Your task to perform on an android device: toggle data saver in the chrome app Image 0: 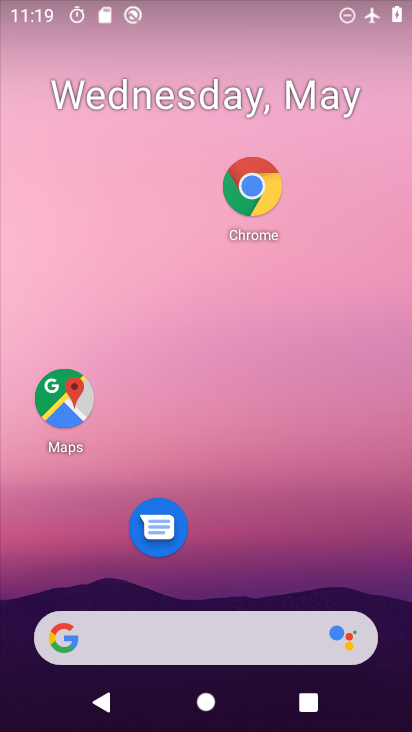
Step 0: click (230, 189)
Your task to perform on an android device: toggle data saver in the chrome app Image 1: 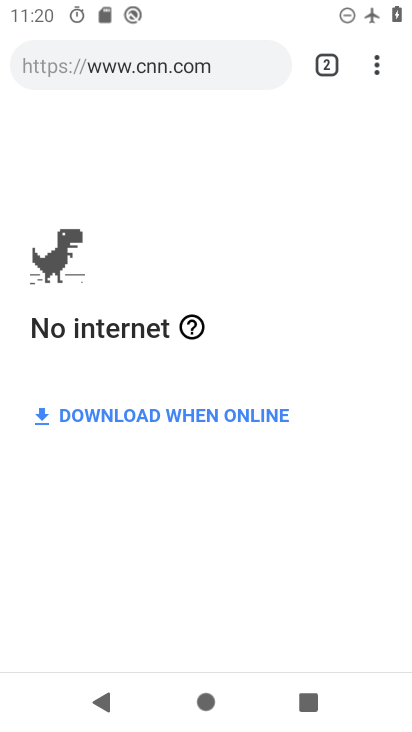
Step 1: press home button
Your task to perform on an android device: toggle data saver in the chrome app Image 2: 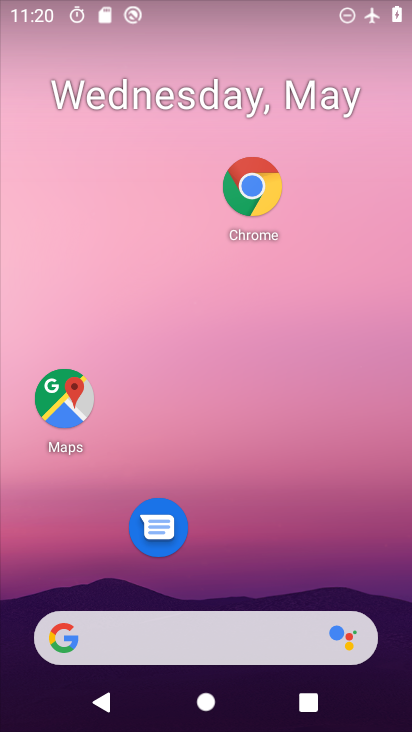
Step 2: drag from (246, 594) to (315, 192)
Your task to perform on an android device: toggle data saver in the chrome app Image 3: 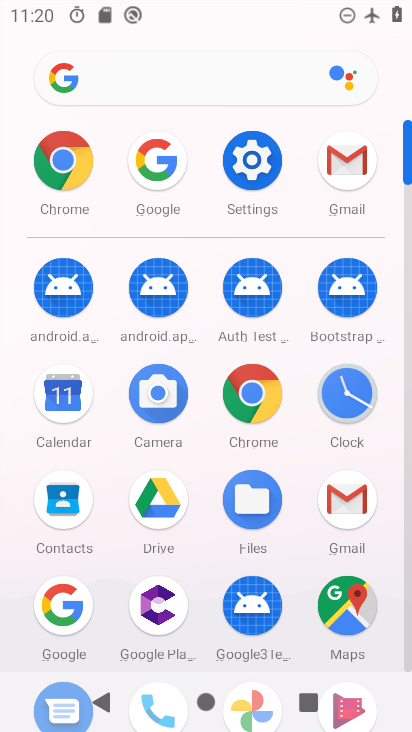
Step 3: click (145, 530)
Your task to perform on an android device: toggle data saver in the chrome app Image 4: 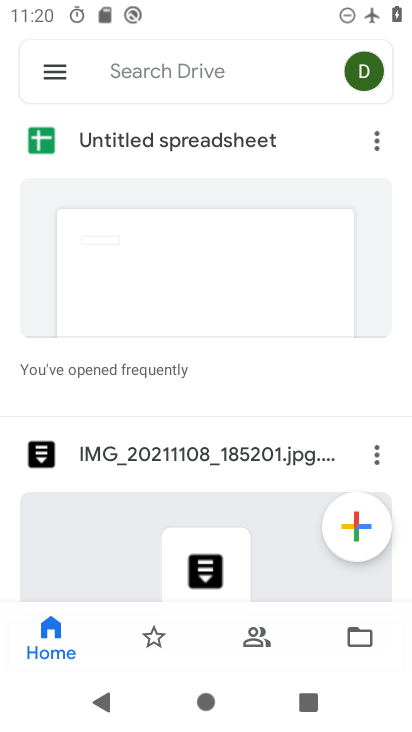
Step 4: press home button
Your task to perform on an android device: toggle data saver in the chrome app Image 5: 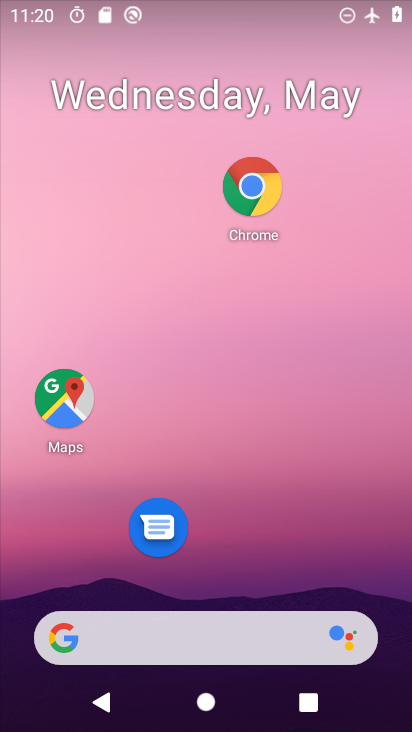
Step 5: drag from (275, 623) to (327, 112)
Your task to perform on an android device: toggle data saver in the chrome app Image 6: 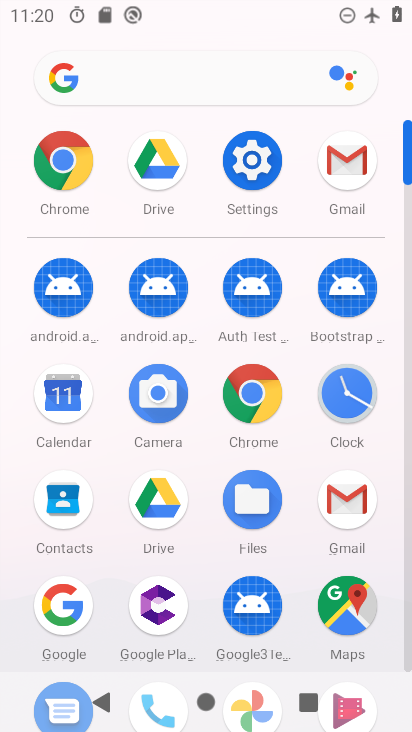
Step 6: click (60, 170)
Your task to perform on an android device: toggle data saver in the chrome app Image 7: 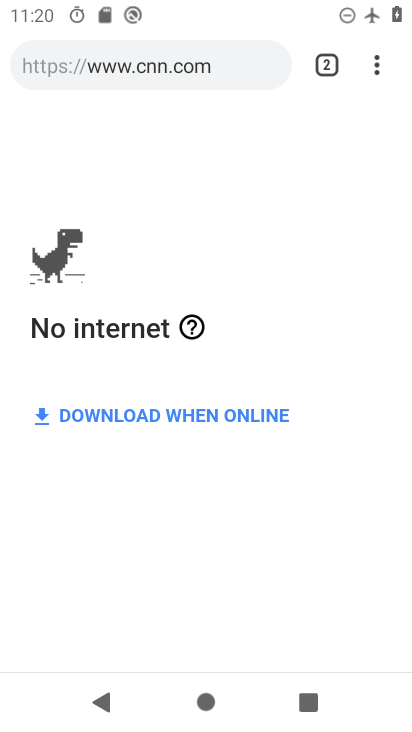
Step 7: click (377, 71)
Your task to perform on an android device: toggle data saver in the chrome app Image 8: 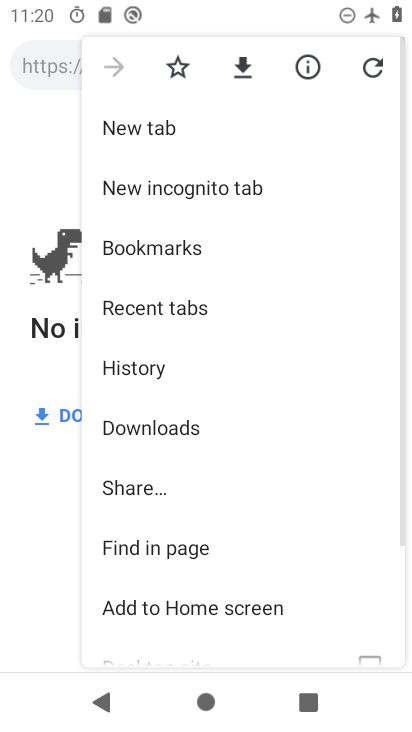
Step 8: drag from (254, 463) to (287, 259)
Your task to perform on an android device: toggle data saver in the chrome app Image 9: 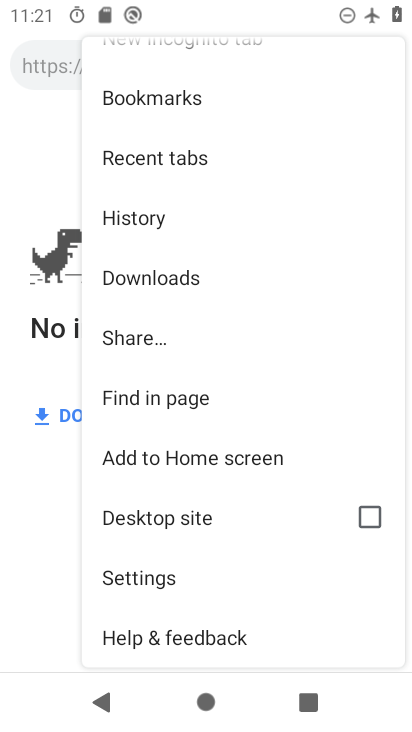
Step 9: drag from (198, 556) to (228, 330)
Your task to perform on an android device: toggle data saver in the chrome app Image 10: 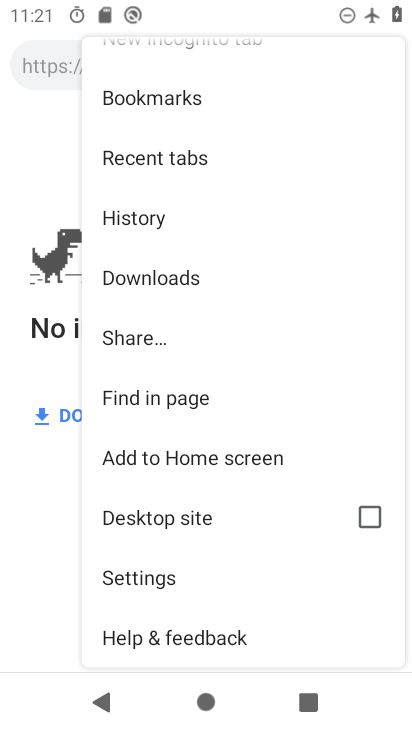
Step 10: click (182, 583)
Your task to perform on an android device: toggle data saver in the chrome app Image 11: 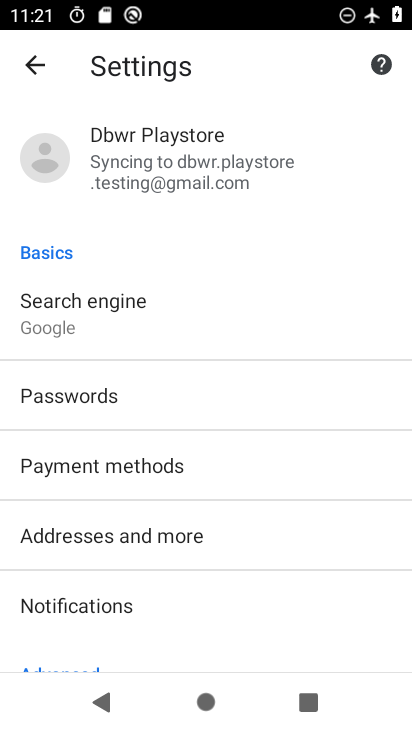
Step 11: drag from (169, 536) to (245, 277)
Your task to perform on an android device: toggle data saver in the chrome app Image 12: 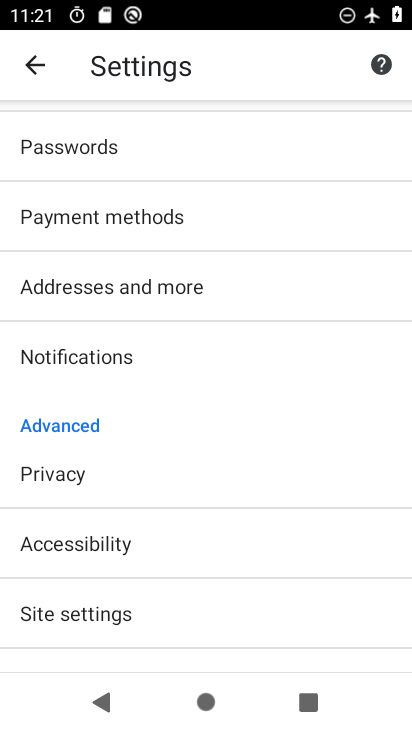
Step 12: drag from (146, 552) to (192, 268)
Your task to perform on an android device: toggle data saver in the chrome app Image 13: 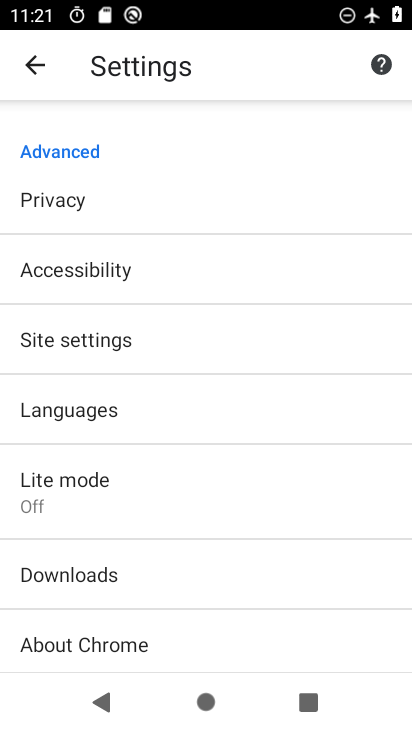
Step 13: drag from (175, 478) to (263, 280)
Your task to perform on an android device: toggle data saver in the chrome app Image 14: 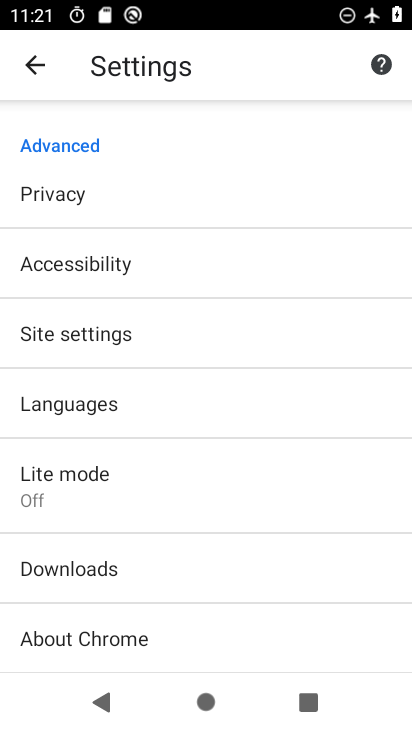
Step 14: click (129, 492)
Your task to perform on an android device: toggle data saver in the chrome app Image 15: 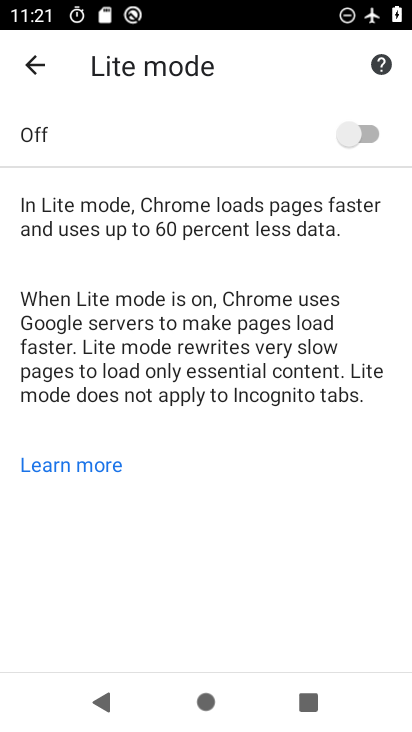
Step 15: click (378, 141)
Your task to perform on an android device: toggle data saver in the chrome app Image 16: 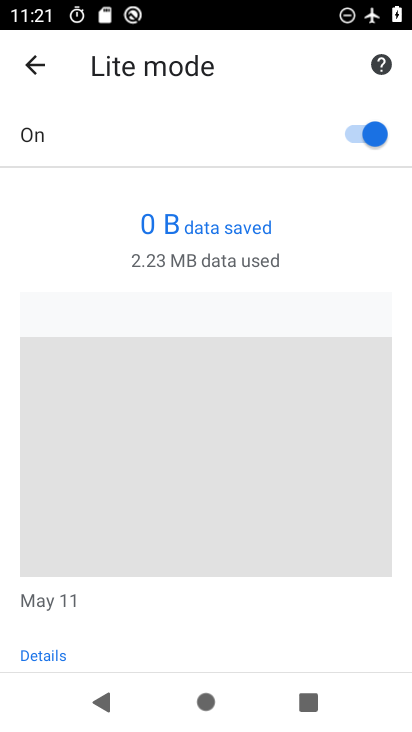
Step 16: task complete